Your task to perform on an android device: Open the phone app and click the voicemail tab. Image 0: 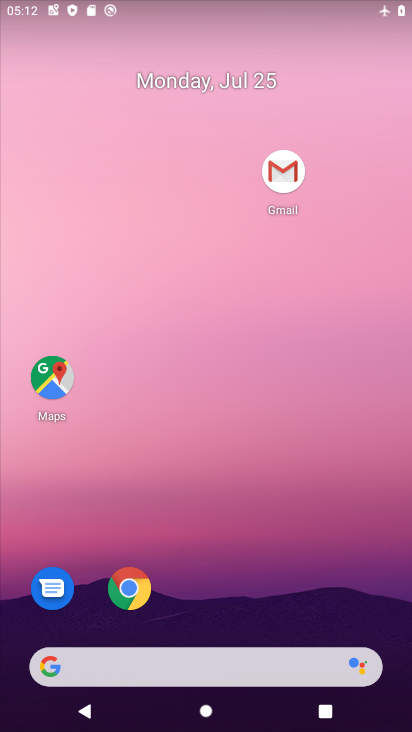
Step 0: drag from (274, 564) to (216, 25)
Your task to perform on an android device: Open the phone app and click the voicemail tab. Image 1: 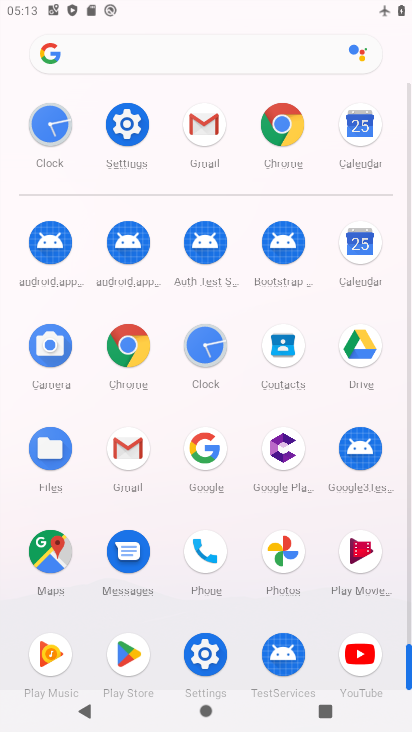
Step 1: click (202, 549)
Your task to perform on an android device: Open the phone app and click the voicemail tab. Image 2: 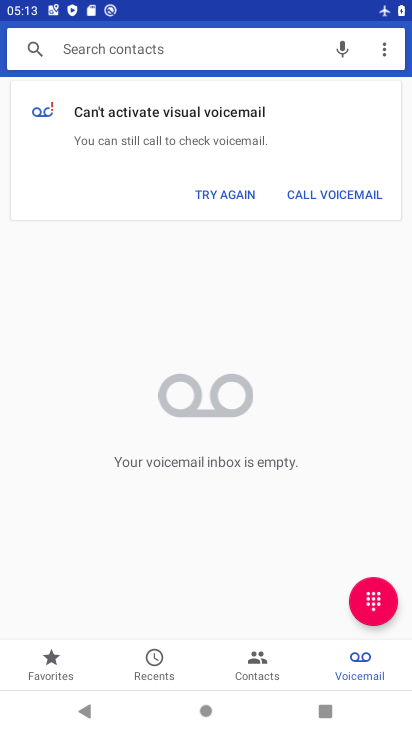
Step 2: task complete